Your task to perform on an android device: star an email in the gmail app Image 0: 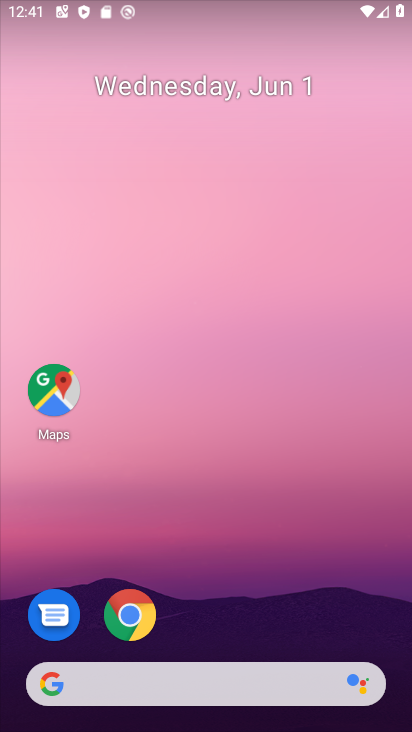
Step 0: task complete